Your task to perform on an android device: Open CNN.com Image 0: 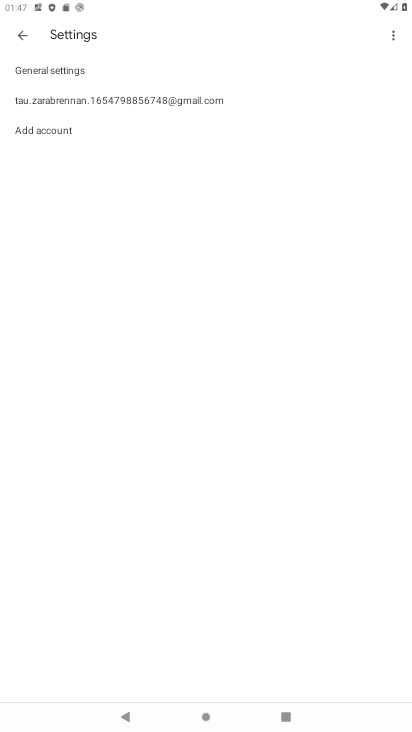
Step 0: press home button
Your task to perform on an android device: Open CNN.com Image 1: 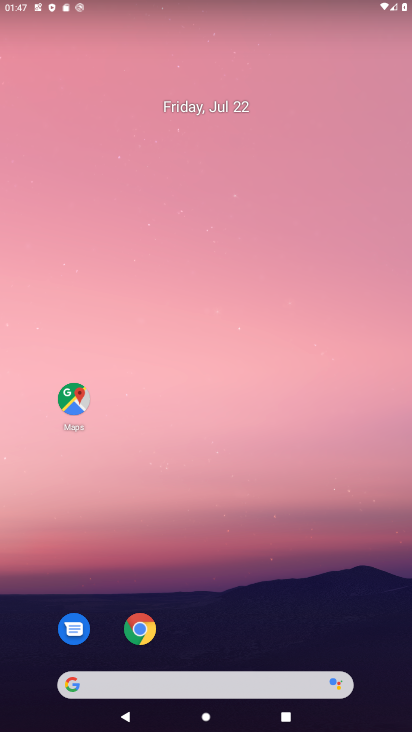
Step 1: click (159, 686)
Your task to perform on an android device: Open CNN.com Image 2: 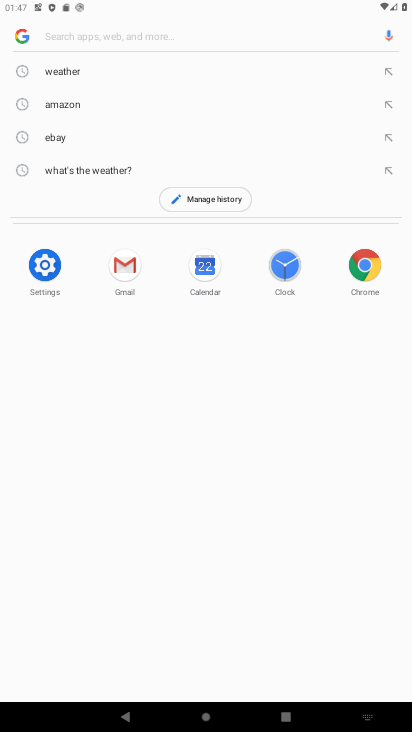
Step 2: click (206, 33)
Your task to perform on an android device: Open CNN.com Image 3: 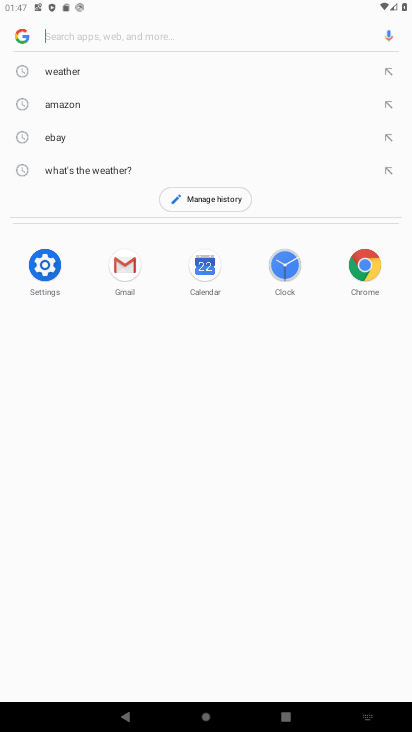
Step 3: type "CNN.com"
Your task to perform on an android device: Open CNN.com Image 4: 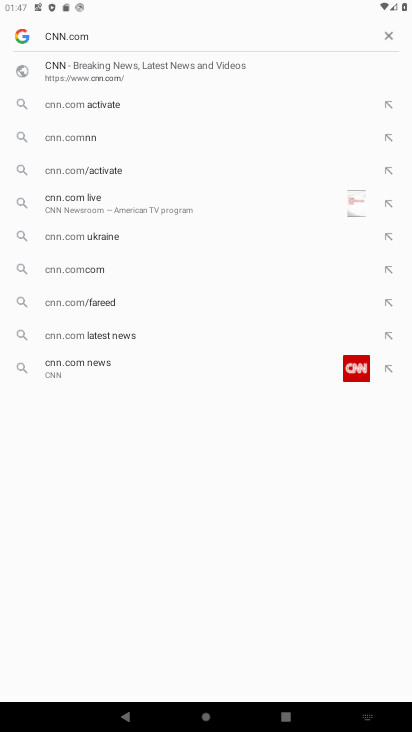
Step 4: click (159, 79)
Your task to perform on an android device: Open CNN.com Image 5: 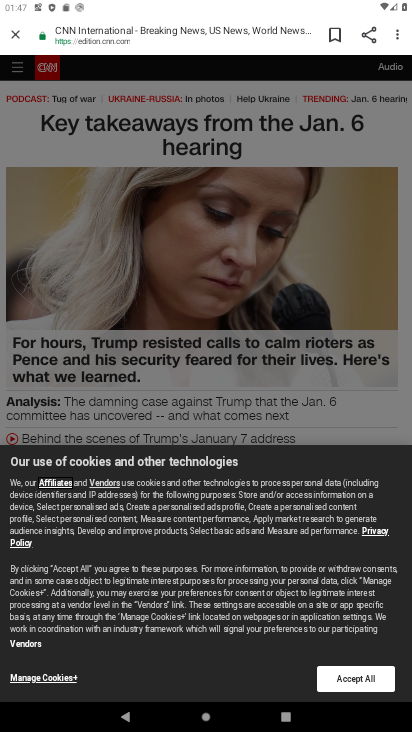
Step 5: task complete